Your task to perform on an android device: turn pop-ups on in chrome Image 0: 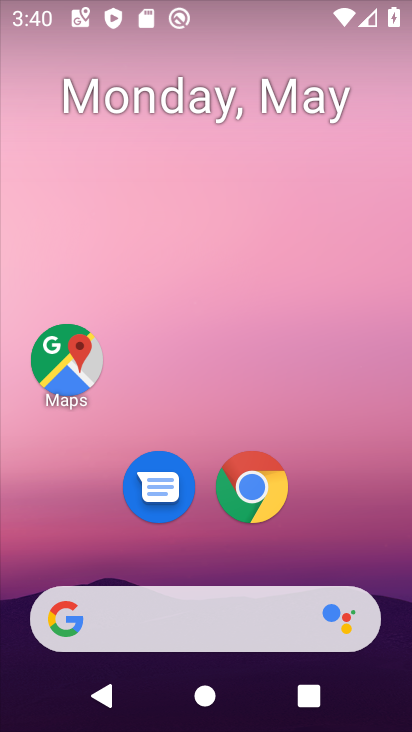
Step 0: drag from (250, 585) to (278, 174)
Your task to perform on an android device: turn pop-ups on in chrome Image 1: 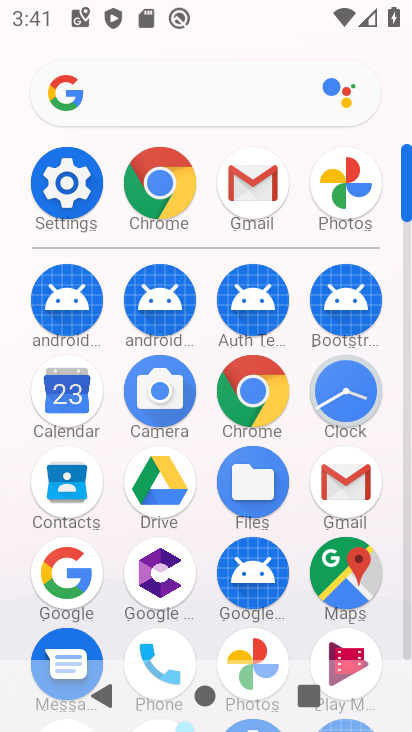
Step 1: click (265, 399)
Your task to perform on an android device: turn pop-ups on in chrome Image 2: 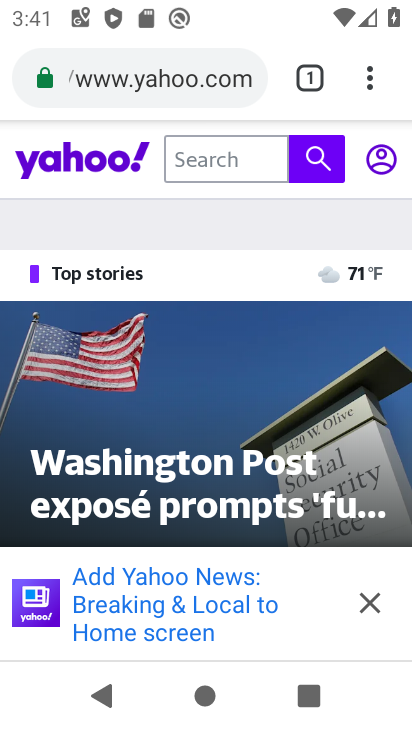
Step 2: click (367, 76)
Your task to perform on an android device: turn pop-ups on in chrome Image 3: 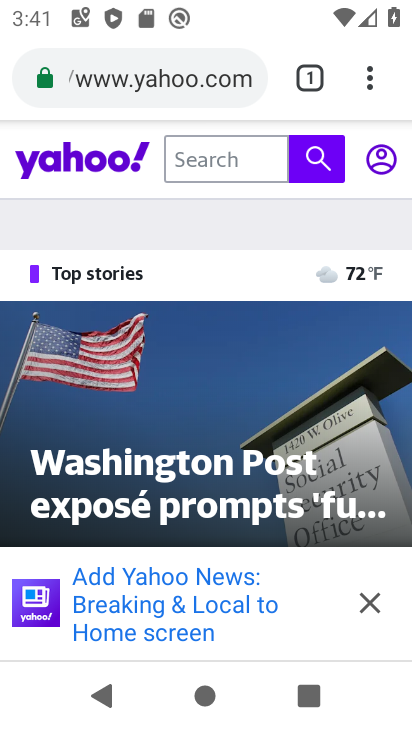
Step 3: click (367, 76)
Your task to perform on an android device: turn pop-ups on in chrome Image 4: 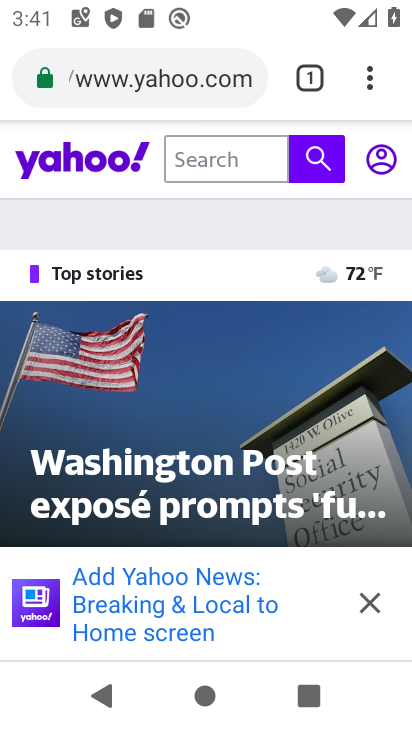
Step 4: click (367, 76)
Your task to perform on an android device: turn pop-ups on in chrome Image 5: 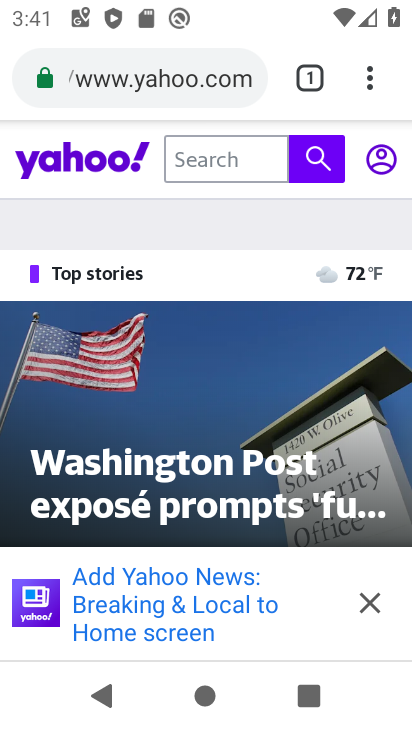
Step 5: click (319, 81)
Your task to perform on an android device: turn pop-ups on in chrome Image 6: 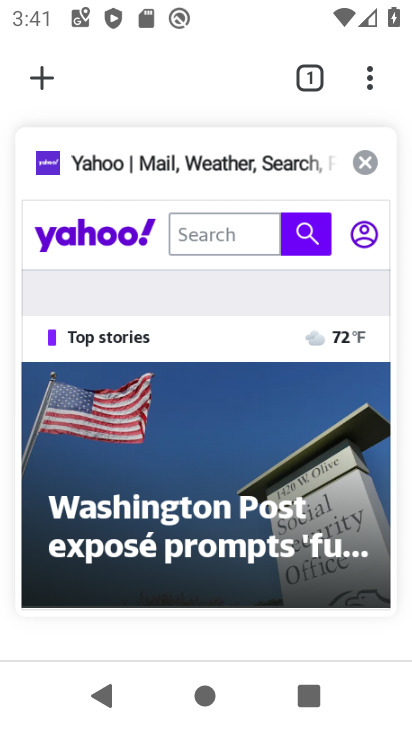
Step 6: click (364, 166)
Your task to perform on an android device: turn pop-ups on in chrome Image 7: 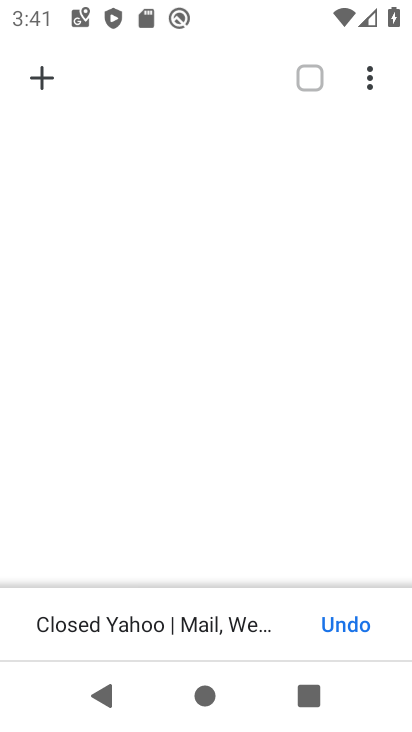
Step 7: click (37, 84)
Your task to perform on an android device: turn pop-ups on in chrome Image 8: 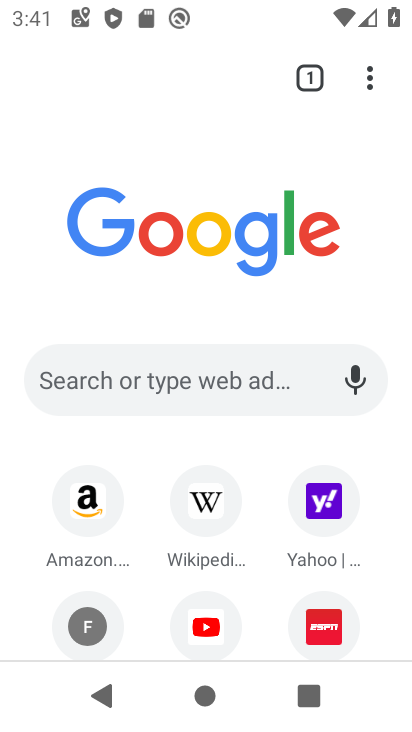
Step 8: click (371, 73)
Your task to perform on an android device: turn pop-ups on in chrome Image 9: 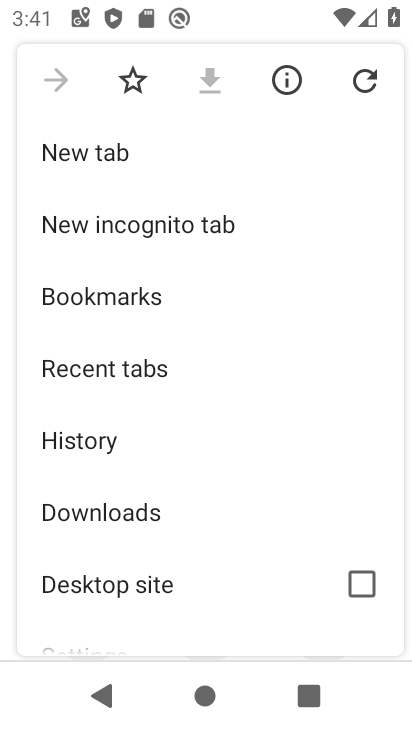
Step 9: drag from (137, 650) to (138, 217)
Your task to perform on an android device: turn pop-ups on in chrome Image 10: 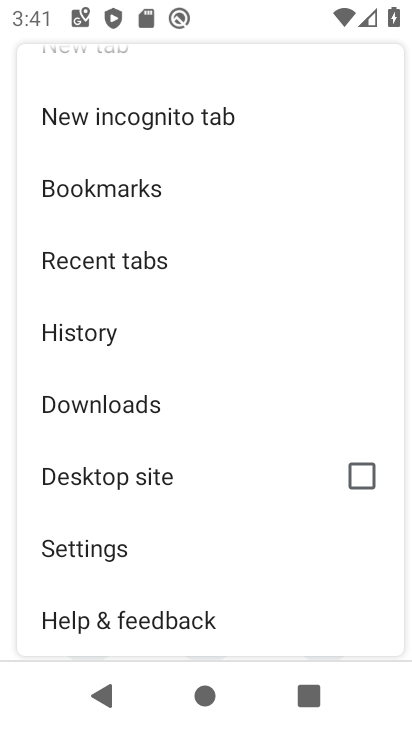
Step 10: click (105, 556)
Your task to perform on an android device: turn pop-ups on in chrome Image 11: 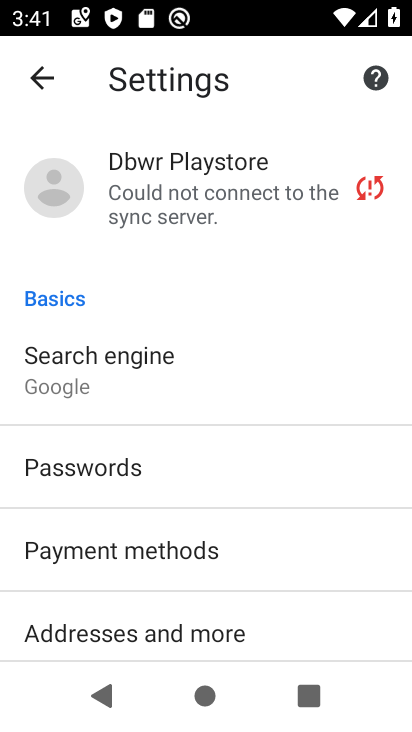
Step 11: drag from (151, 642) to (173, 266)
Your task to perform on an android device: turn pop-ups on in chrome Image 12: 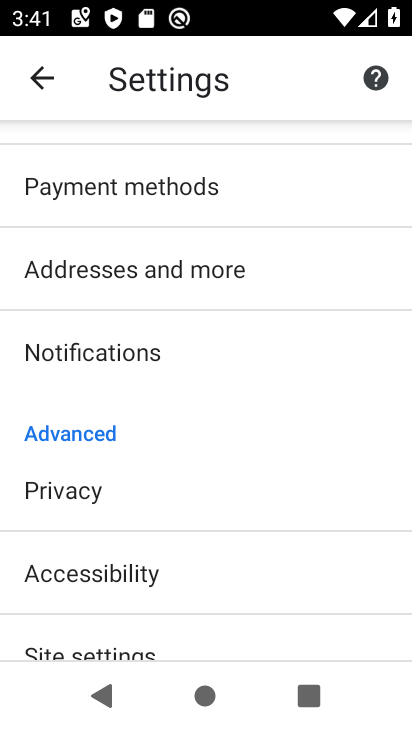
Step 12: drag from (87, 627) to (108, 234)
Your task to perform on an android device: turn pop-ups on in chrome Image 13: 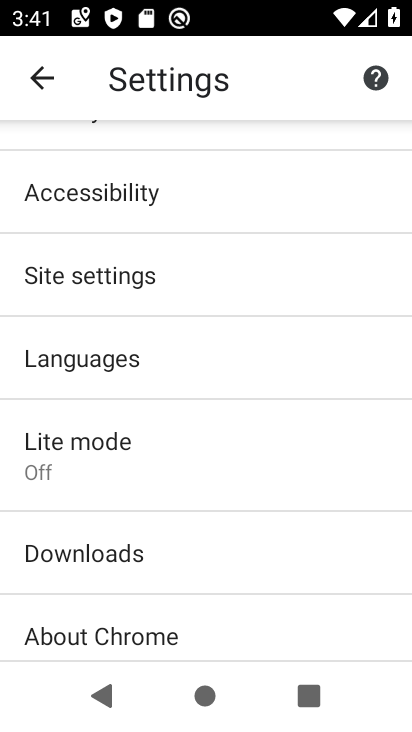
Step 13: click (88, 272)
Your task to perform on an android device: turn pop-ups on in chrome Image 14: 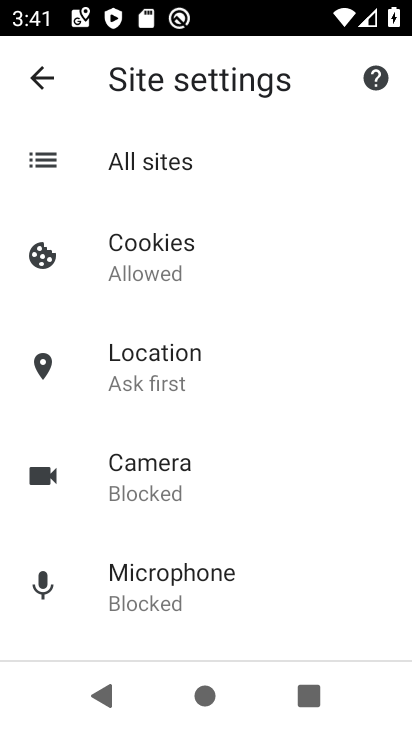
Step 14: drag from (157, 592) to (164, 187)
Your task to perform on an android device: turn pop-ups on in chrome Image 15: 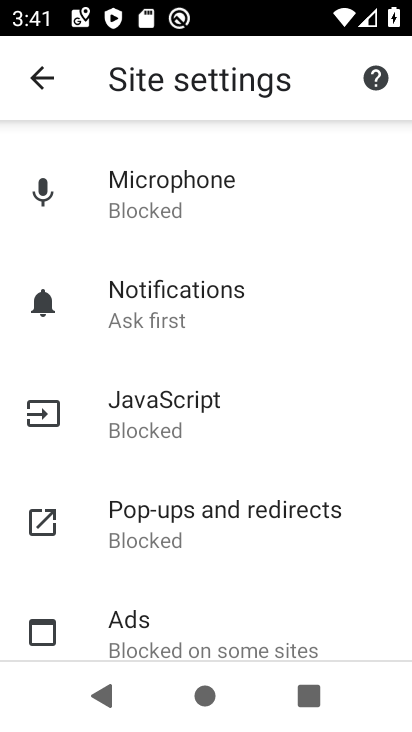
Step 15: click (162, 512)
Your task to perform on an android device: turn pop-ups on in chrome Image 16: 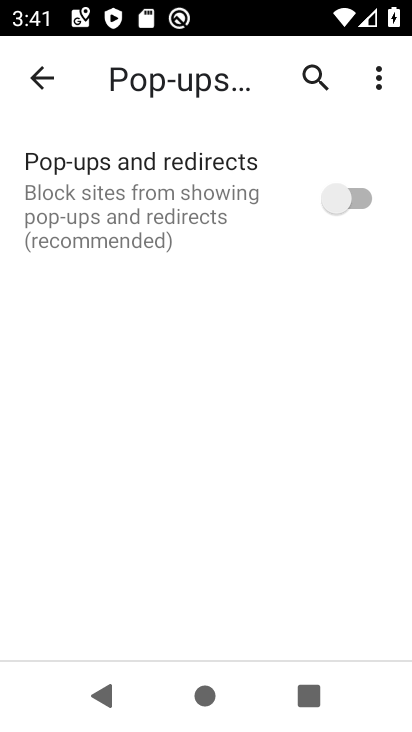
Step 16: click (360, 195)
Your task to perform on an android device: turn pop-ups on in chrome Image 17: 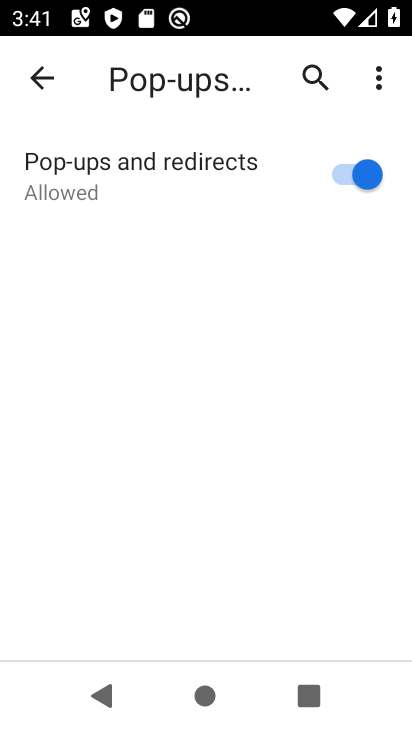
Step 17: task complete